Your task to perform on an android device: change the upload size in google photos Image 0: 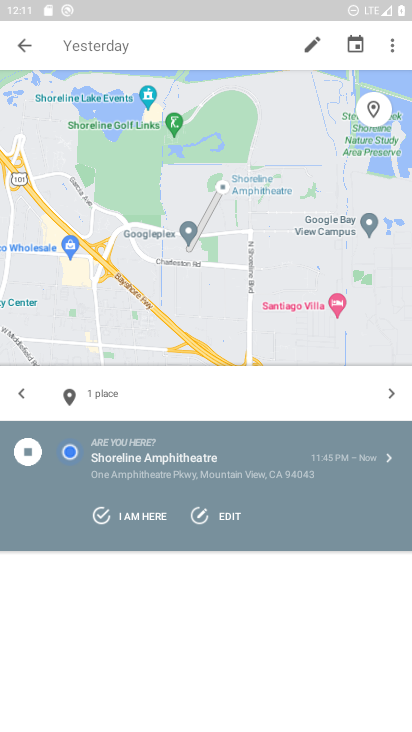
Step 0: press home button
Your task to perform on an android device: change the upload size in google photos Image 1: 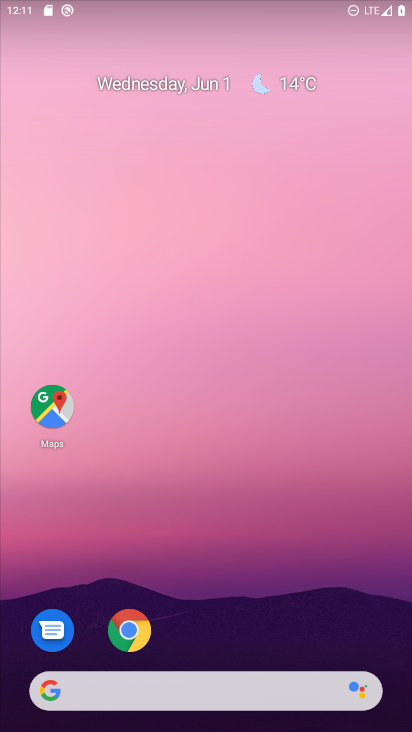
Step 1: drag from (232, 558) to (219, 119)
Your task to perform on an android device: change the upload size in google photos Image 2: 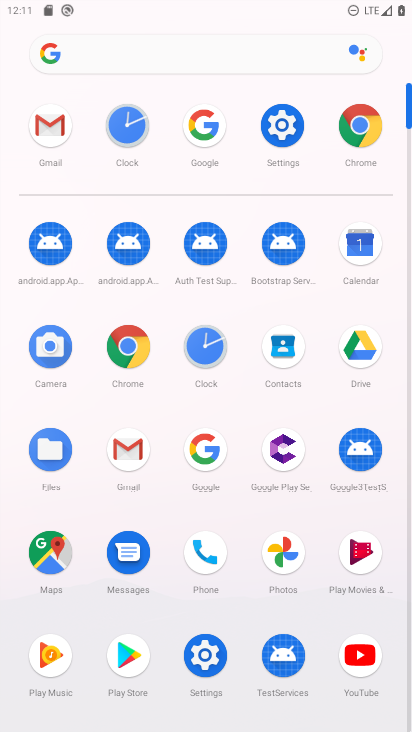
Step 2: click (288, 550)
Your task to perform on an android device: change the upload size in google photos Image 3: 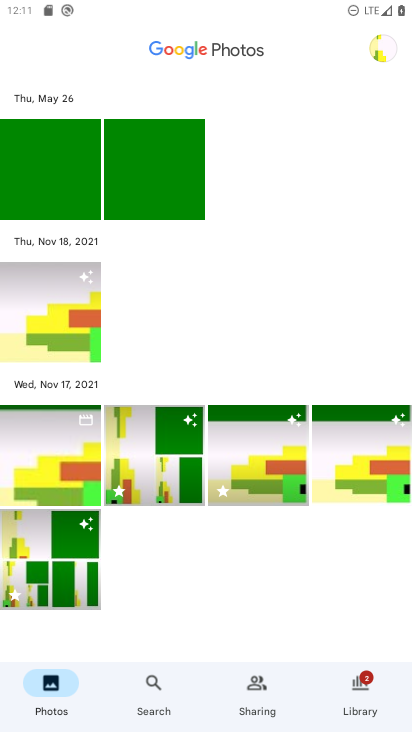
Step 3: click (391, 56)
Your task to perform on an android device: change the upload size in google photos Image 4: 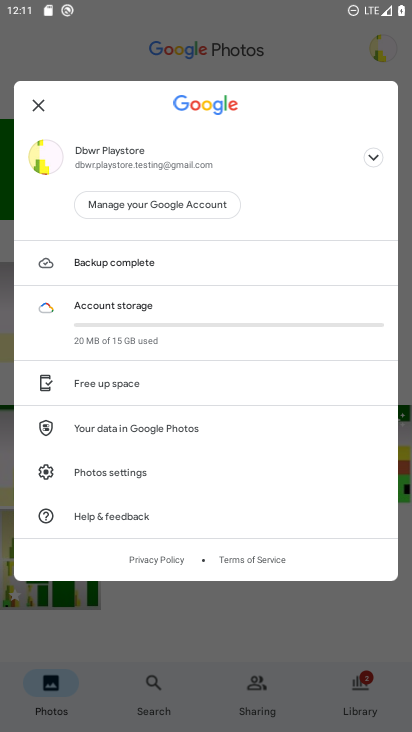
Step 4: click (103, 471)
Your task to perform on an android device: change the upload size in google photos Image 5: 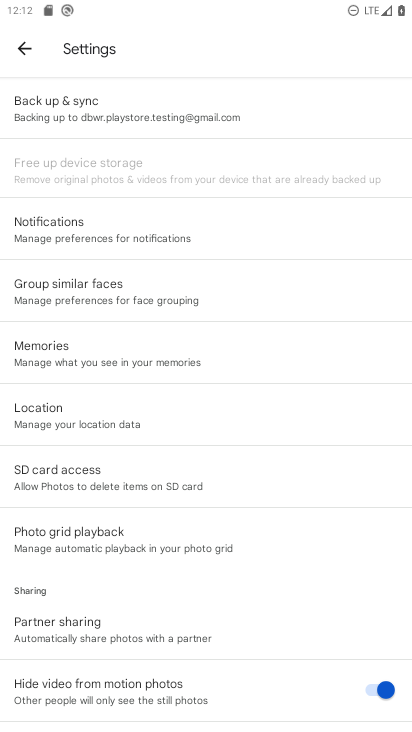
Step 5: click (195, 114)
Your task to perform on an android device: change the upload size in google photos Image 6: 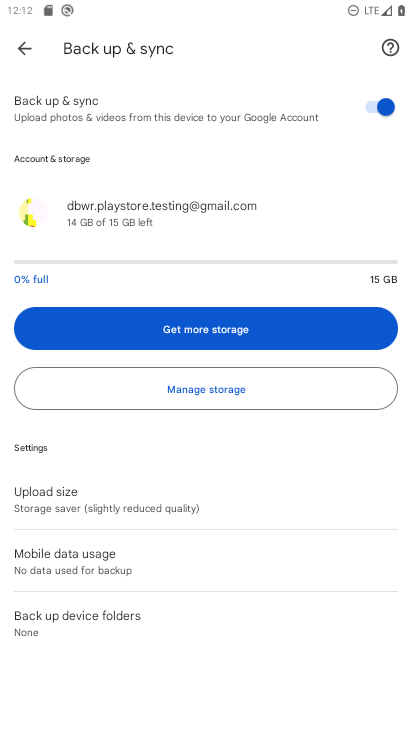
Step 6: click (119, 513)
Your task to perform on an android device: change the upload size in google photos Image 7: 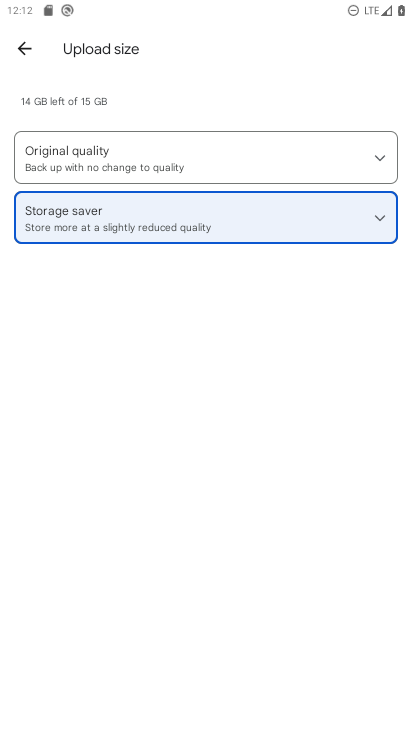
Step 7: click (150, 176)
Your task to perform on an android device: change the upload size in google photos Image 8: 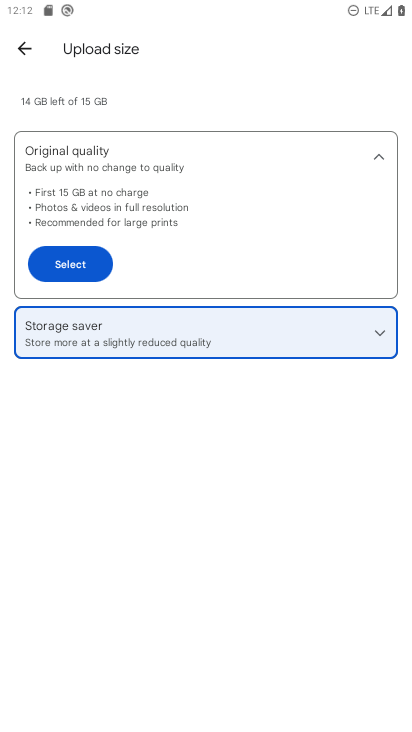
Step 8: click (76, 277)
Your task to perform on an android device: change the upload size in google photos Image 9: 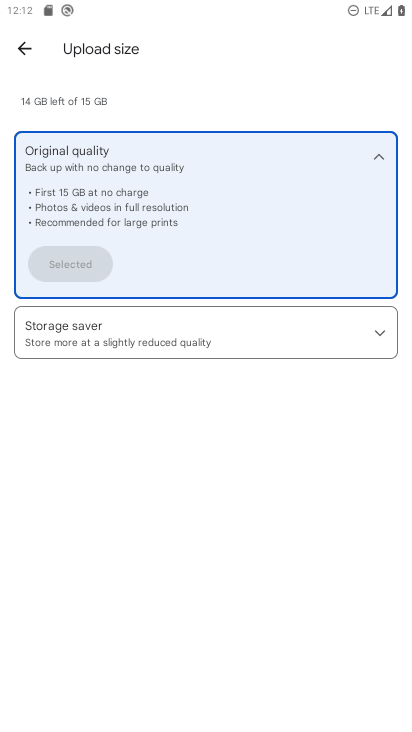
Step 9: task complete